Your task to perform on an android device: delete the emails in spam in the gmail app Image 0: 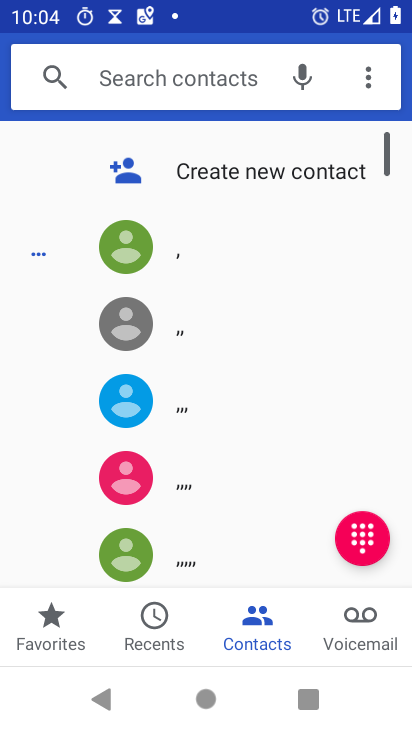
Step 0: press home button
Your task to perform on an android device: delete the emails in spam in the gmail app Image 1: 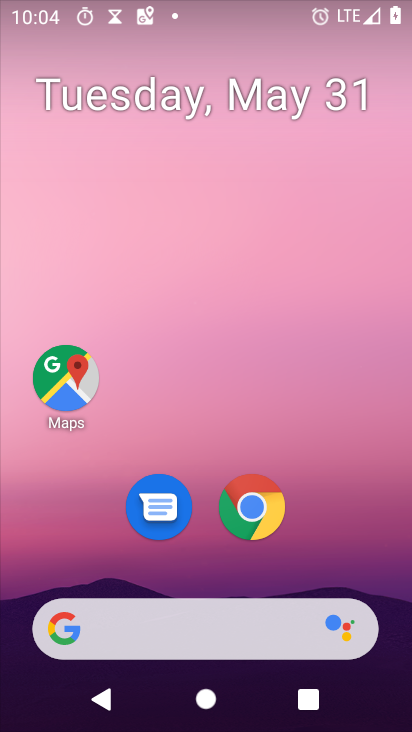
Step 1: drag from (15, 618) to (242, 225)
Your task to perform on an android device: delete the emails in spam in the gmail app Image 2: 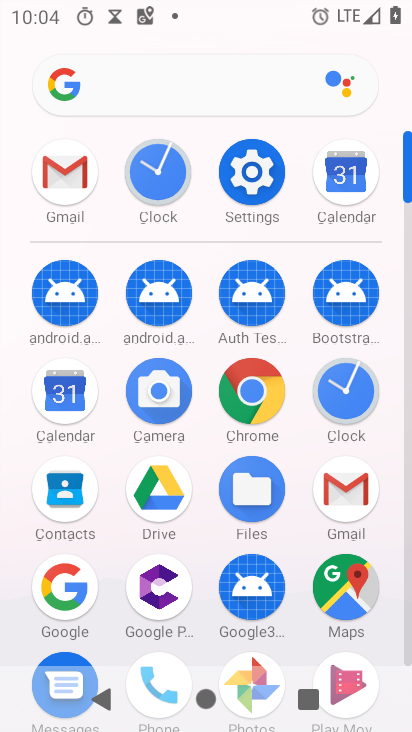
Step 2: click (364, 481)
Your task to perform on an android device: delete the emails in spam in the gmail app Image 3: 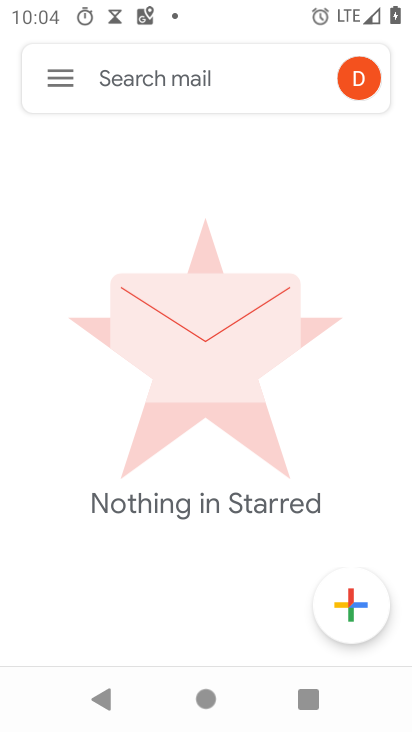
Step 3: click (51, 68)
Your task to perform on an android device: delete the emails in spam in the gmail app Image 4: 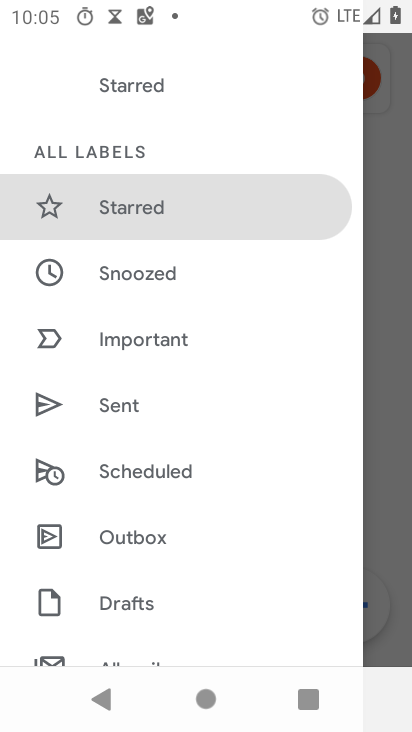
Step 4: drag from (2, 615) to (193, 183)
Your task to perform on an android device: delete the emails in spam in the gmail app Image 5: 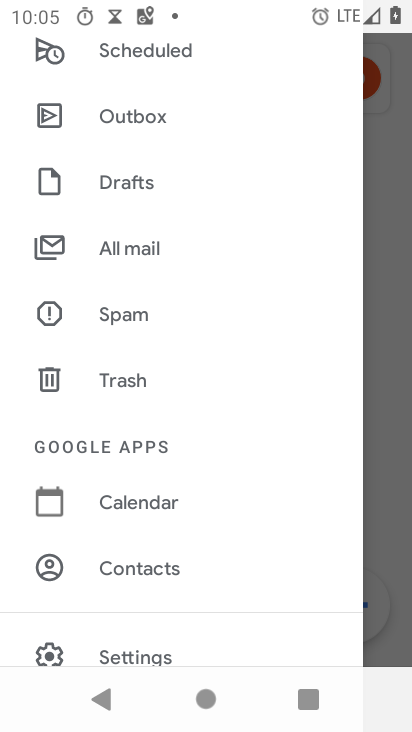
Step 5: click (109, 255)
Your task to perform on an android device: delete the emails in spam in the gmail app Image 6: 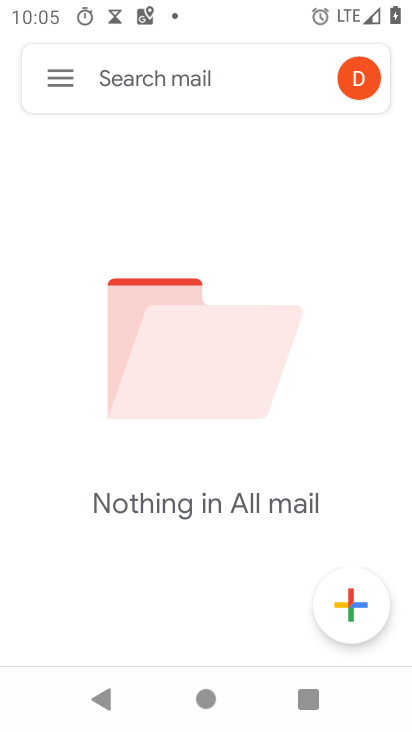
Step 6: click (54, 68)
Your task to perform on an android device: delete the emails in spam in the gmail app Image 7: 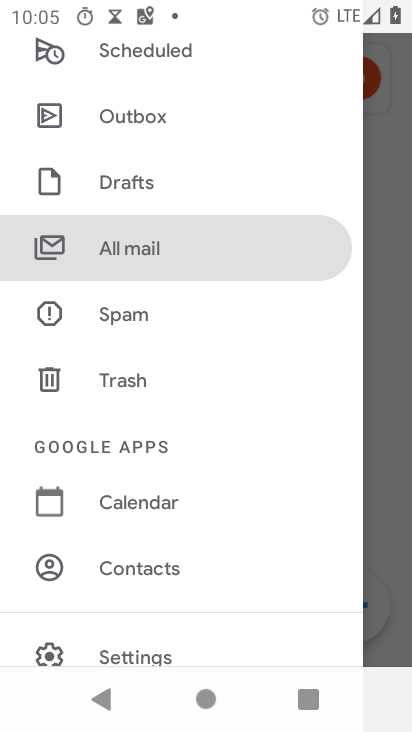
Step 7: click (125, 310)
Your task to perform on an android device: delete the emails in spam in the gmail app Image 8: 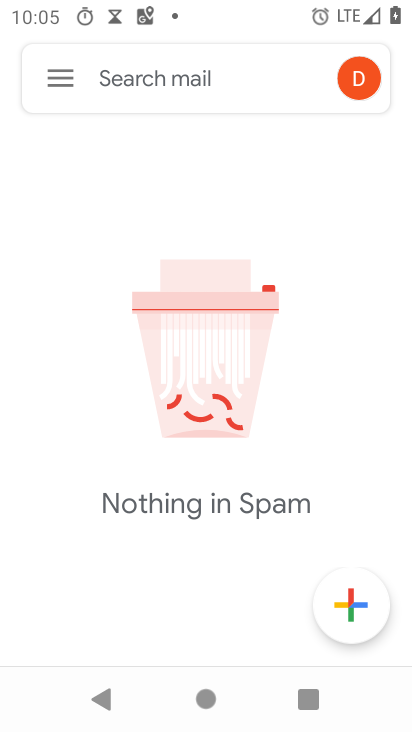
Step 8: task complete